Your task to perform on an android device: Go to eBay Image 0: 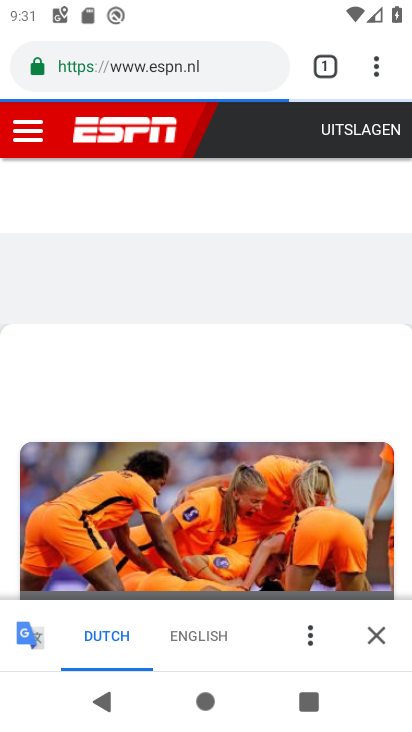
Step 0: press home button
Your task to perform on an android device: Go to eBay Image 1: 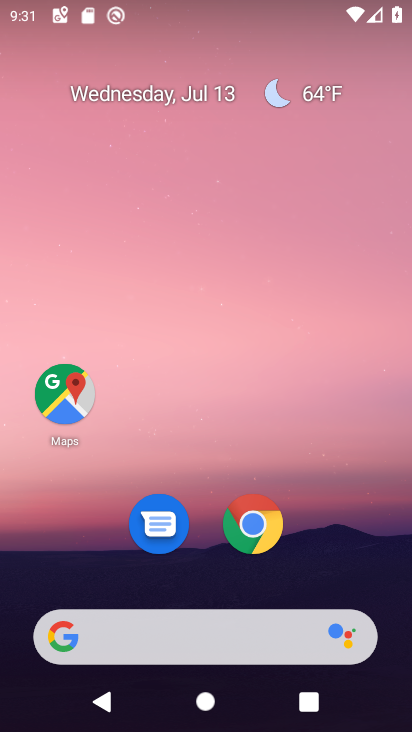
Step 1: drag from (237, 591) to (238, 91)
Your task to perform on an android device: Go to eBay Image 2: 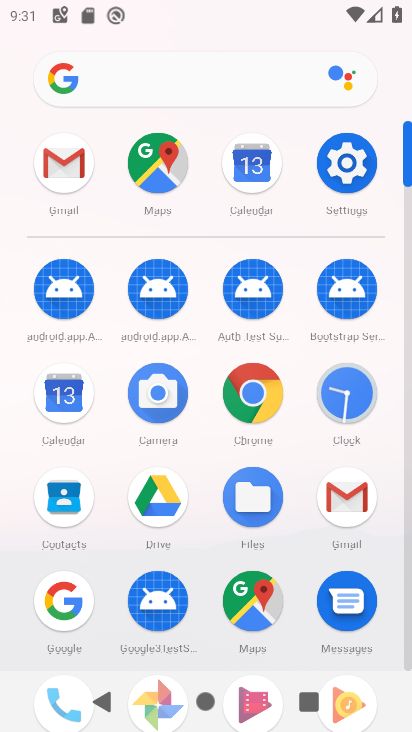
Step 2: click (239, 413)
Your task to perform on an android device: Go to eBay Image 3: 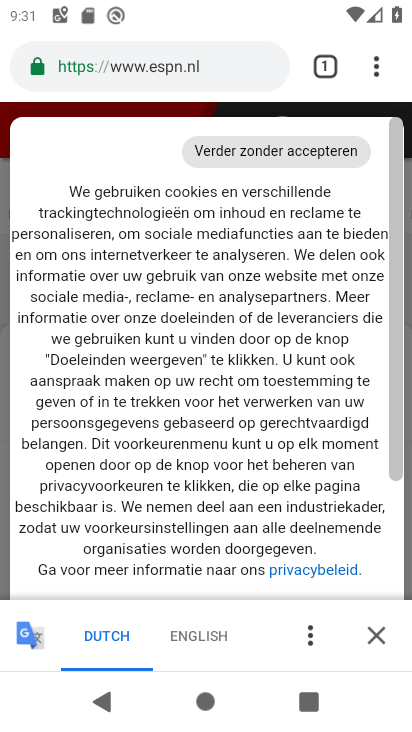
Step 3: click (314, 69)
Your task to perform on an android device: Go to eBay Image 4: 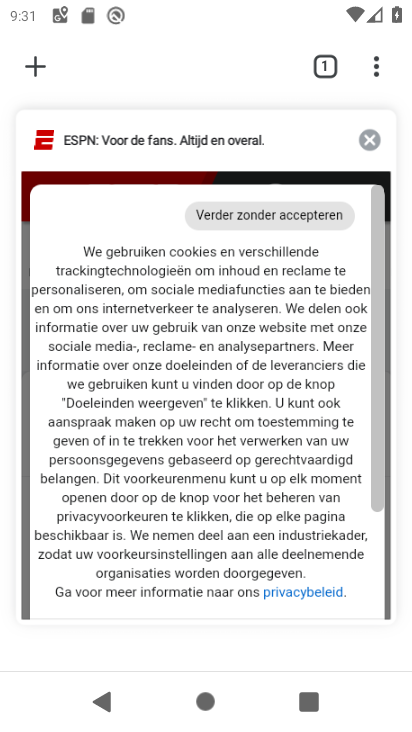
Step 4: click (25, 63)
Your task to perform on an android device: Go to eBay Image 5: 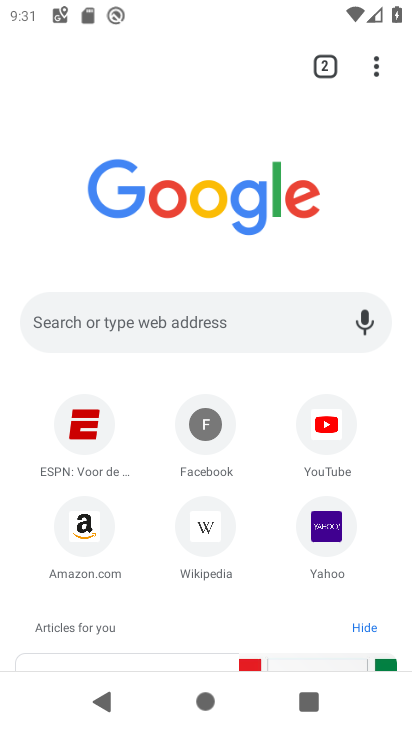
Step 5: click (173, 323)
Your task to perform on an android device: Go to eBay Image 6: 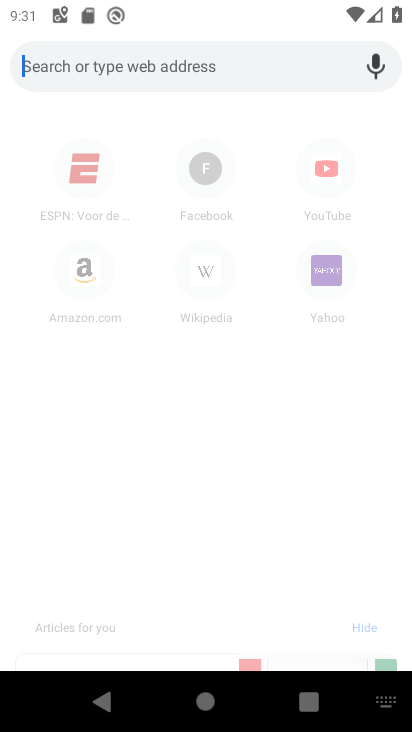
Step 6: type "eBay"
Your task to perform on an android device: Go to eBay Image 7: 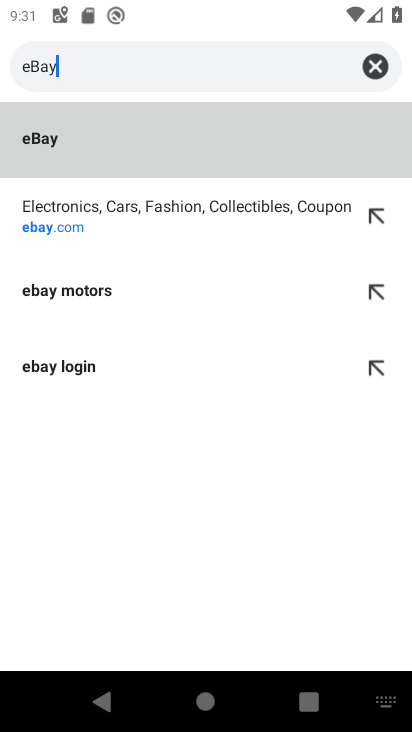
Step 7: type ""
Your task to perform on an android device: Go to eBay Image 8: 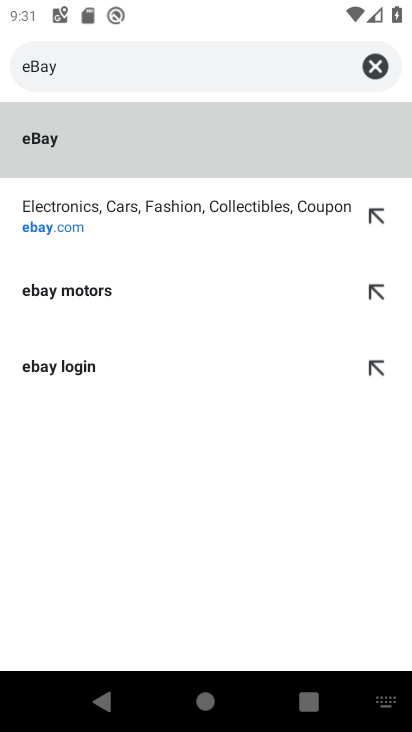
Step 8: click (43, 207)
Your task to perform on an android device: Go to eBay Image 9: 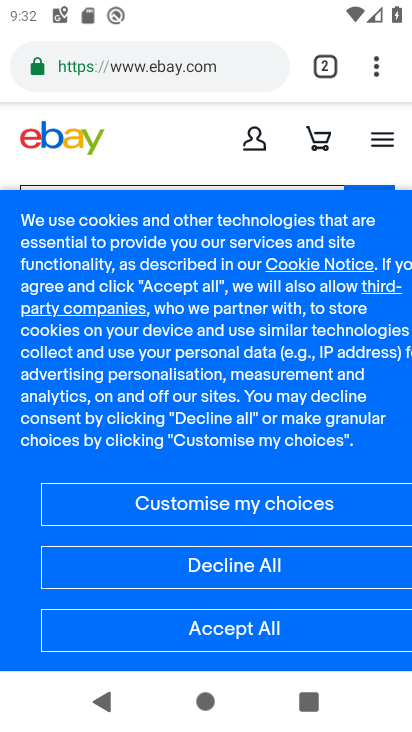
Step 9: task complete